Your task to perform on an android device: Check the news Image 0: 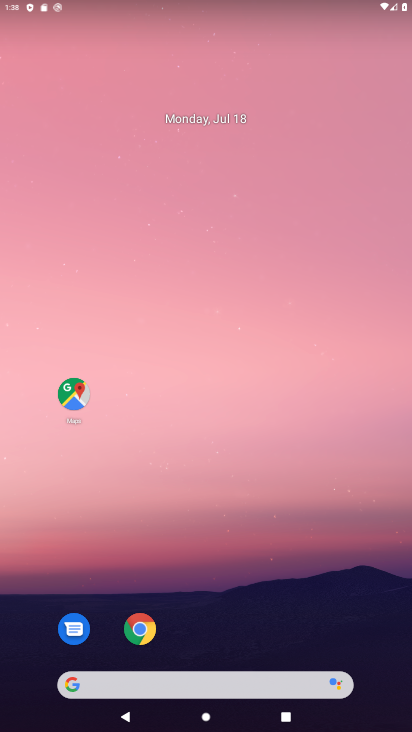
Step 0: drag from (226, 663) to (226, 37)
Your task to perform on an android device: Check the news Image 1: 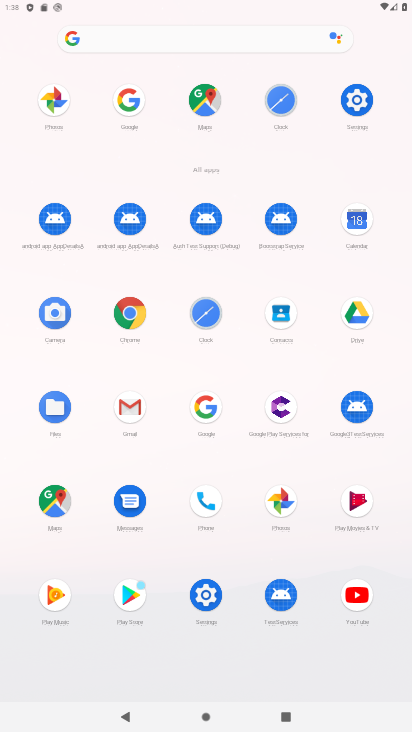
Step 1: click (201, 405)
Your task to perform on an android device: Check the news Image 2: 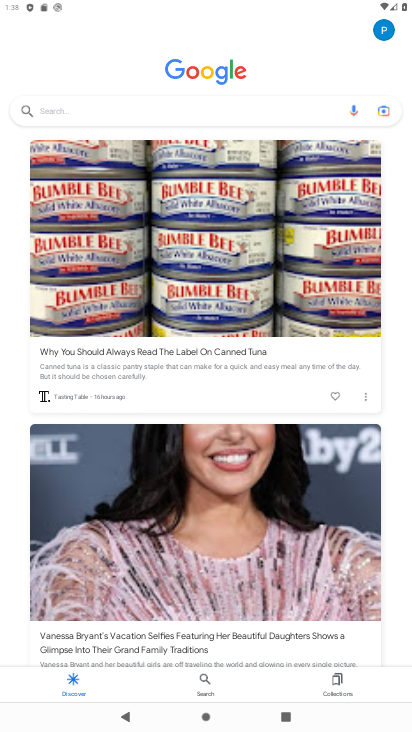
Step 2: click (147, 105)
Your task to perform on an android device: Check the news Image 3: 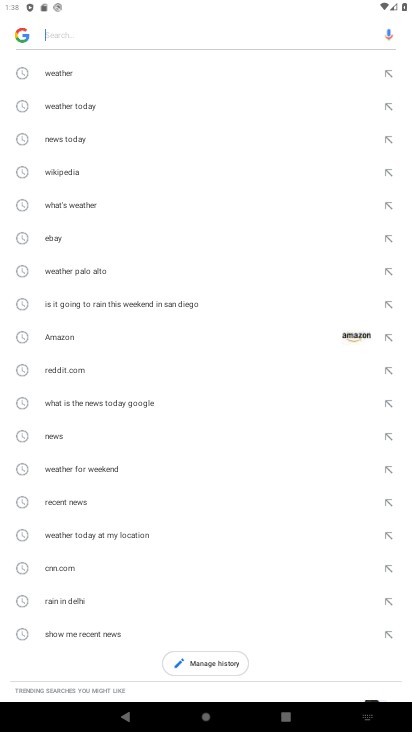
Step 3: click (48, 433)
Your task to perform on an android device: Check the news Image 4: 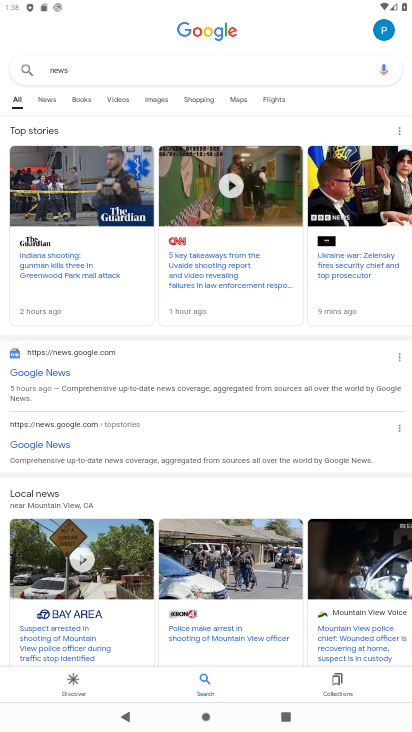
Step 4: task complete